Your task to perform on an android device: open sync settings in chrome Image 0: 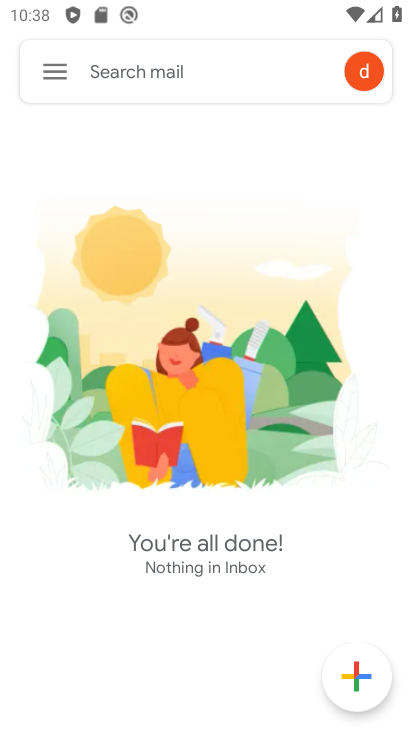
Step 0: press home button
Your task to perform on an android device: open sync settings in chrome Image 1: 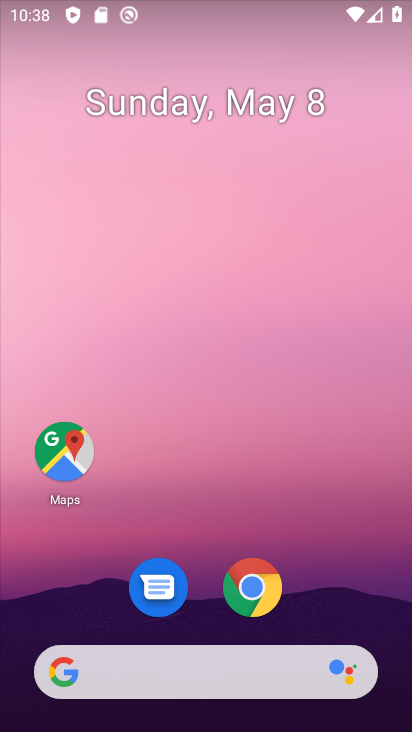
Step 1: drag from (391, 628) to (285, 12)
Your task to perform on an android device: open sync settings in chrome Image 2: 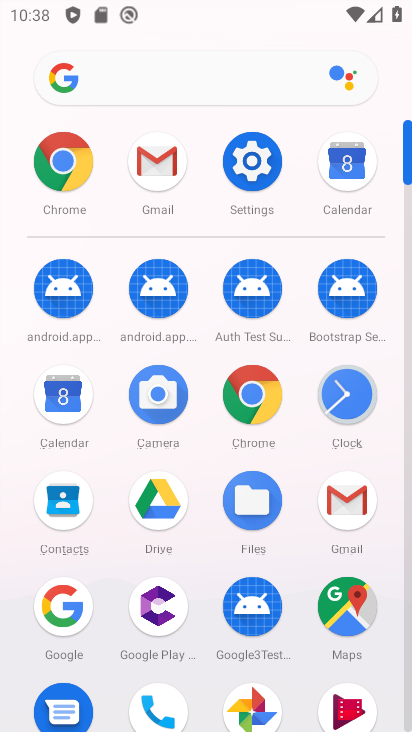
Step 2: click (264, 394)
Your task to perform on an android device: open sync settings in chrome Image 3: 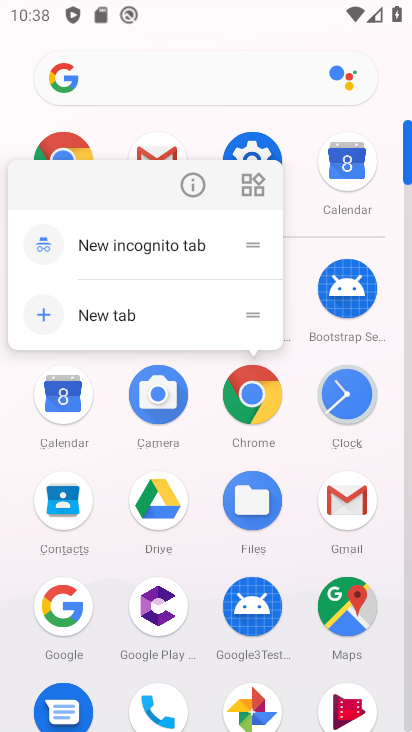
Step 3: click (252, 386)
Your task to perform on an android device: open sync settings in chrome Image 4: 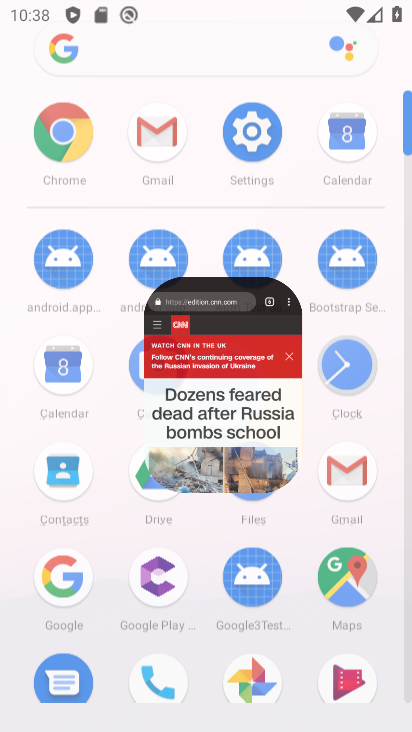
Step 4: click (250, 385)
Your task to perform on an android device: open sync settings in chrome Image 5: 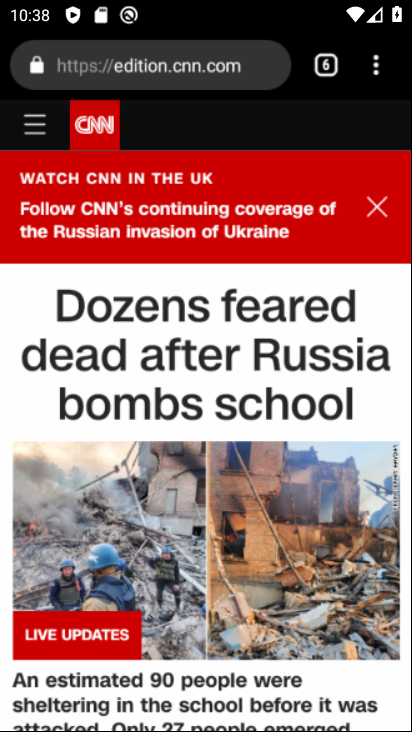
Step 5: click (251, 386)
Your task to perform on an android device: open sync settings in chrome Image 6: 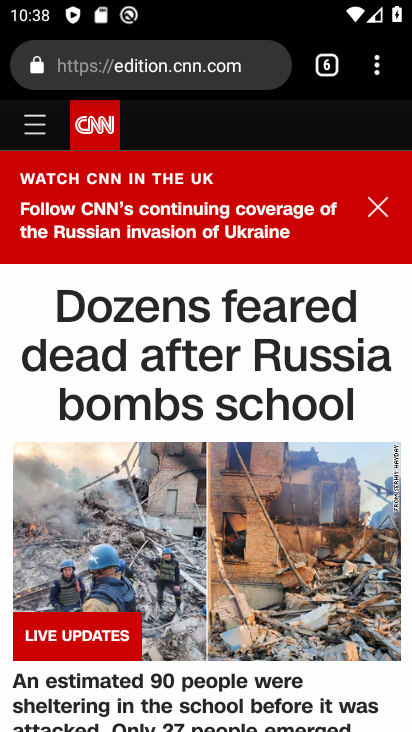
Step 6: drag from (377, 66) to (146, 632)
Your task to perform on an android device: open sync settings in chrome Image 7: 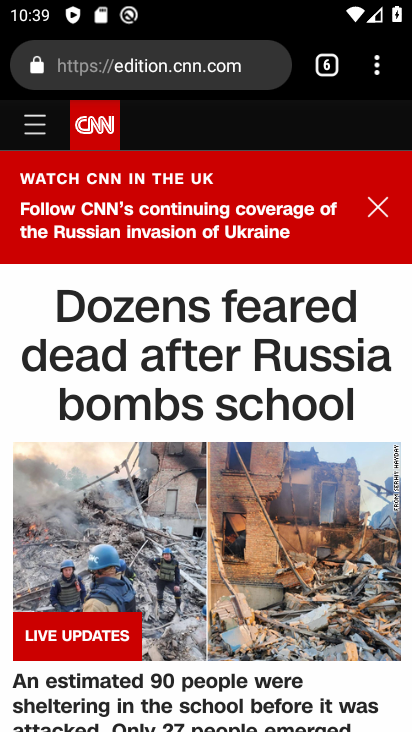
Step 7: click (165, 634)
Your task to perform on an android device: open sync settings in chrome Image 8: 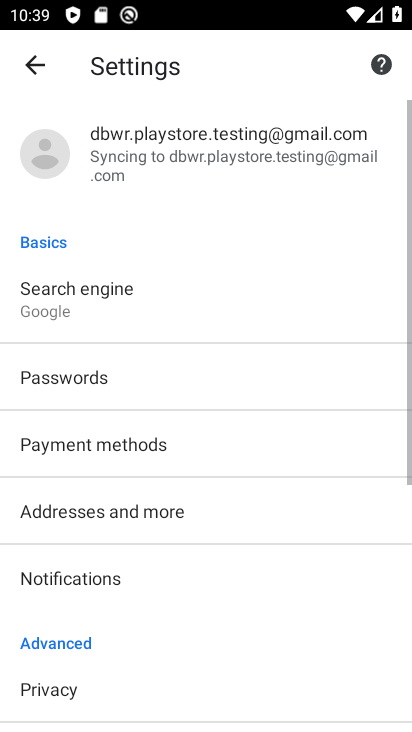
Step 8: drag from (178, 597) to (107, 106)
Your task to perform on an android device: open sync settings in chrome Image 9: 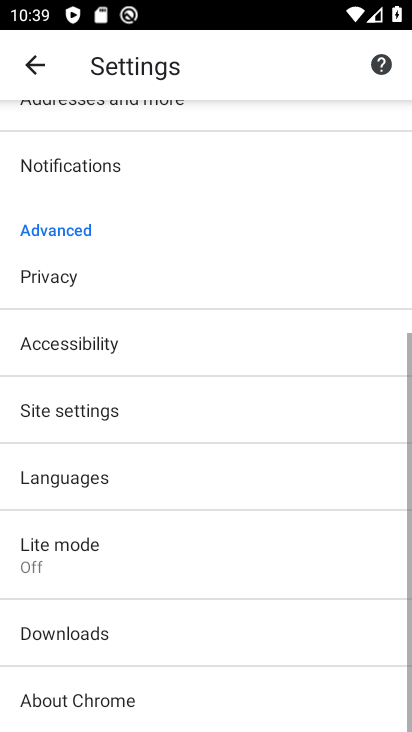
Step 9: drag from (187, 436) to (153, 118)
Your task to perform on an android device: open sync settings in chrome Image 10: 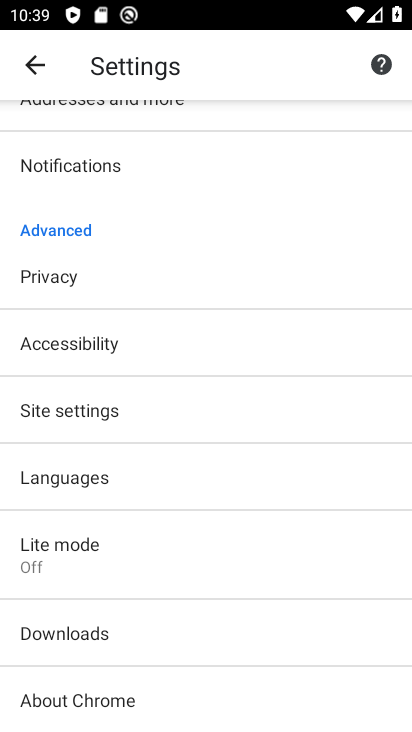
Step 10: click (91, 408)
Your task to perform on an android device: open sync settings in chrome Image 11: 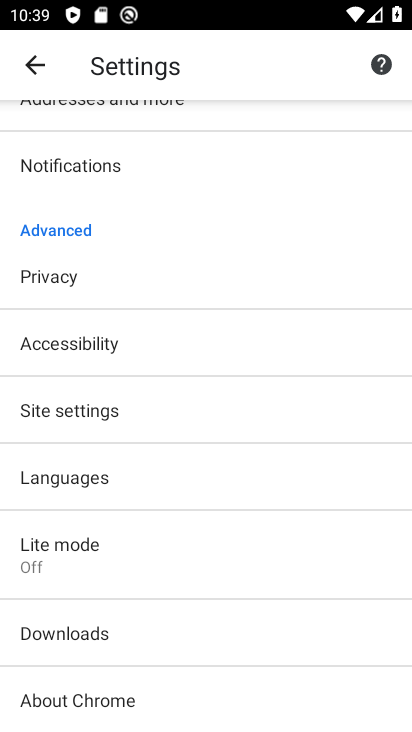
Step 11: click (91, 408)
Your task to perform on an android device: open sync settings in chrome Image 12: 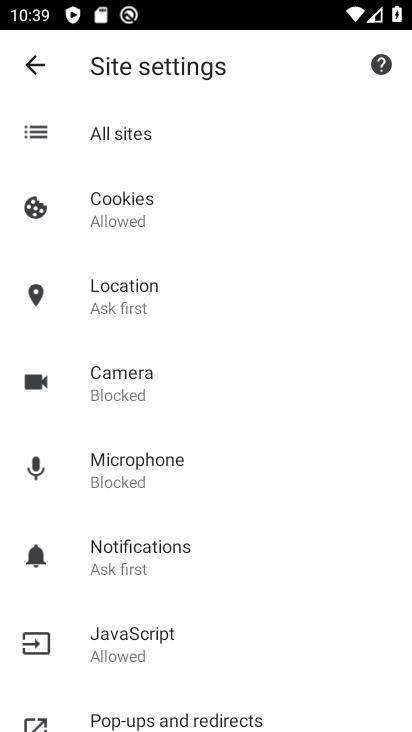
Step 12: drag from (245, 599) to (226, 237)
Your task to perform on an android device: open sync settings in chrome Image 13: 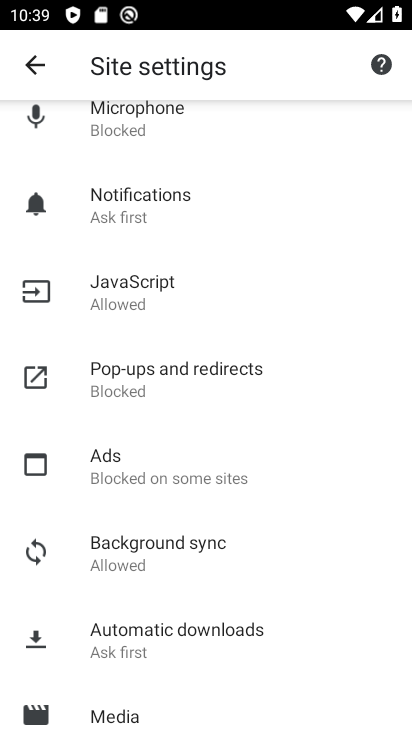
Step 13: drag from (197, 650) to (215, 224)
Your task to perform on an android device: open sync settings in chrome Image 14: 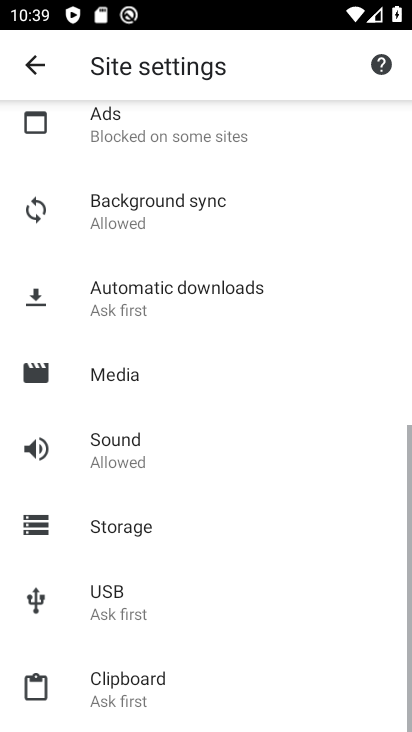
Step 14: click (157, 217)
Your task to perform on an android device: open sync settings in chrome Image 15: 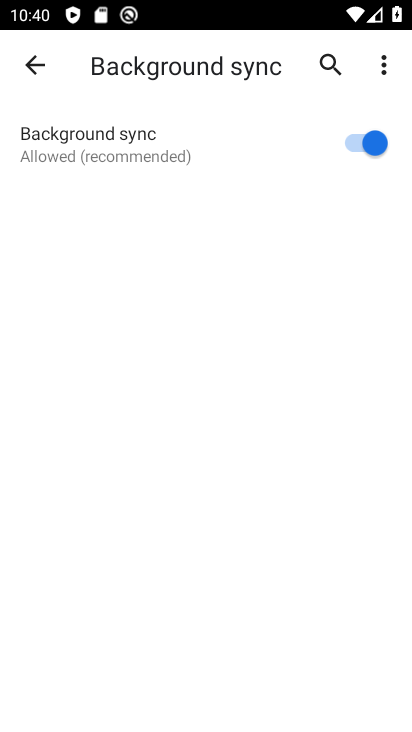
Step 15: task complete